Your task to perform on an android device: create a new album in the google photos Image 0: 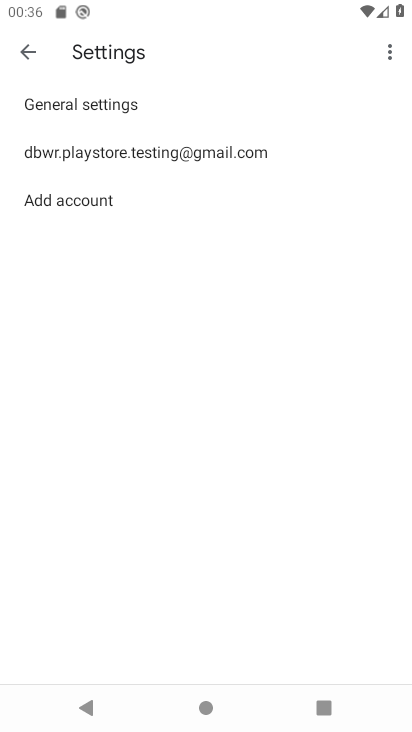
Step 0: press home button
Your task to perform on an android device: create a new album in the google photos Image 1: 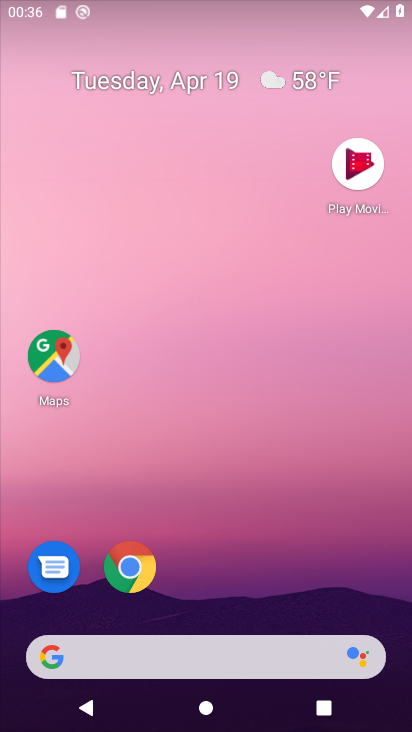
Step 1: drag from (244, 593) to (250, 125)
Your task to perform on an android device: create a new album in the google photos Image 2: 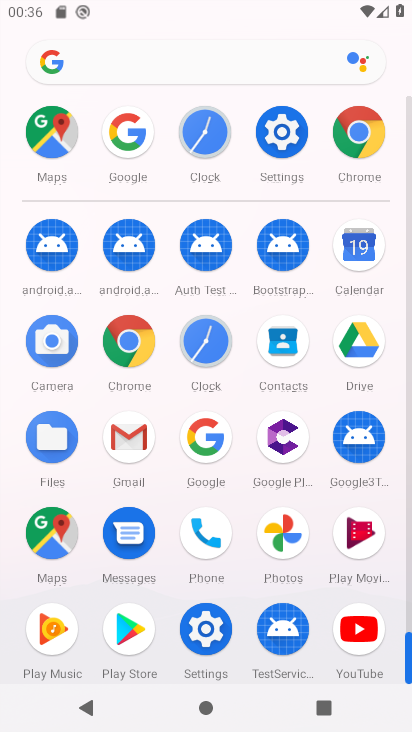
Step 2: click (278, 535)
Your task to perform on an android device: create a new album in the google photos Image 3: 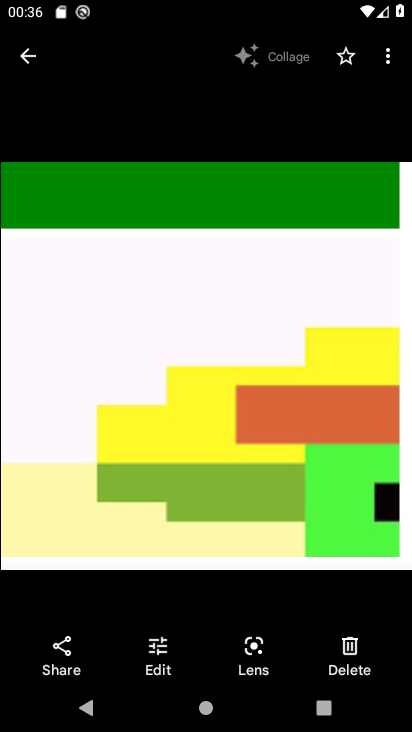
Step 3: drag from (228, 563) to (244, 228)
Your task to perform on an android device: create a new album in the google photos Image 4: 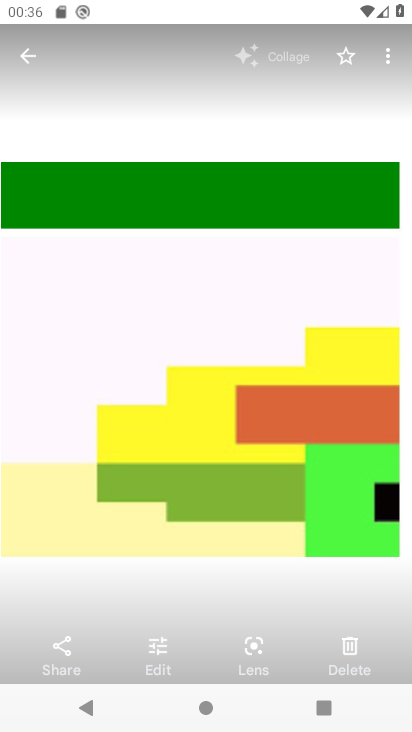
Step 4: press back button
Your task to perform on an android device: create a new album in the google photos Image 5: 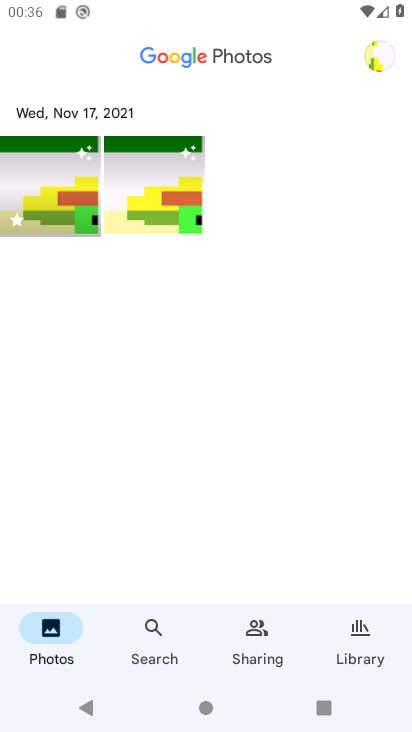
Step 5: click (166, 638)
Your task to perform on an android device: create a new album in the google photos Image 6: 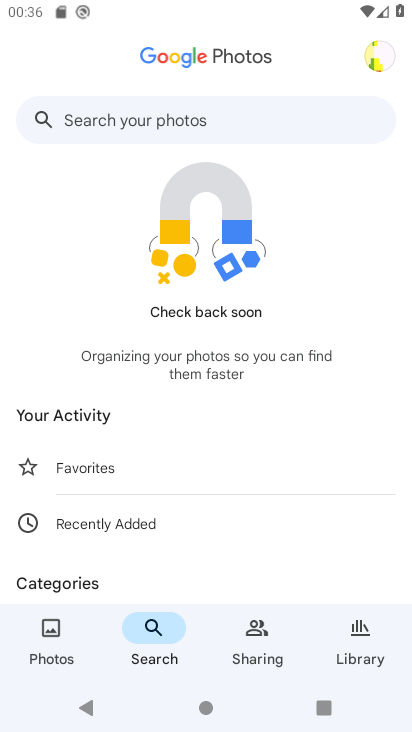
Step 6: drag from (247, 507) to (283, 276)
Your task to perform on an android device: create a new album in the google photos Image 7: 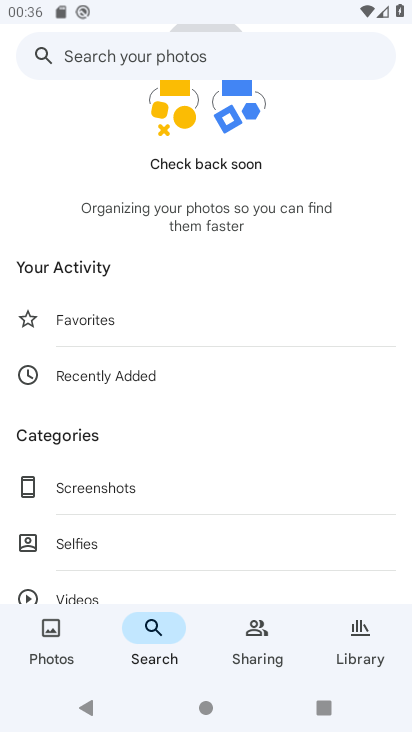
Step 7: click (264, 638)
Your task to perform on an android device: create a new album in the google photos Image 8: 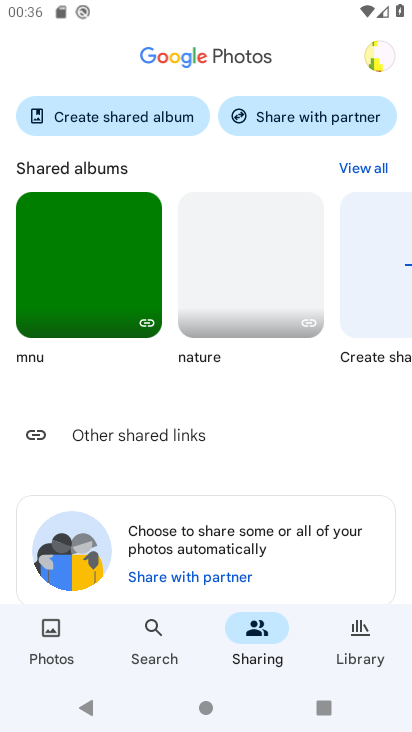
Step 8: drag from (213, 471) to (240, 252)
Your task to perform on an android device: create a new album in the google photos Image 9: 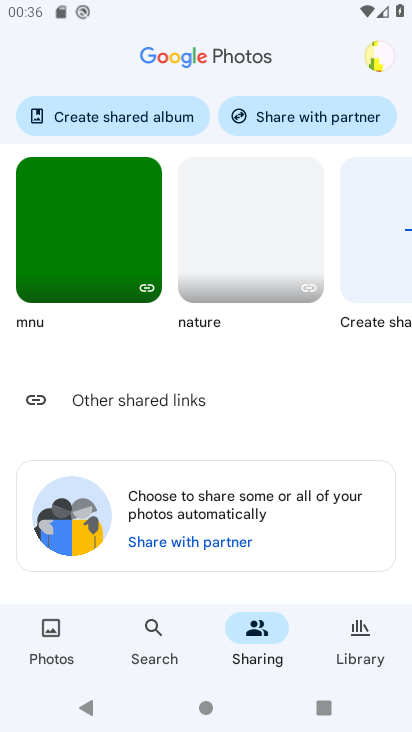
Step 9: drag from (309, 522) to (309, 160)
Your task to perform on an android device: create a new album in the google photos Image 10: 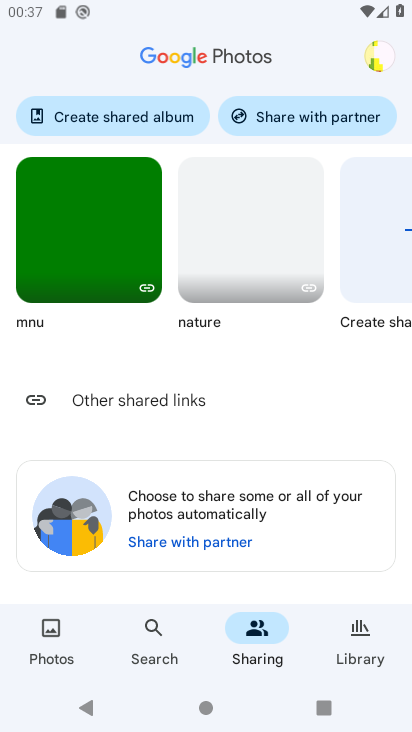
Step 10: drag from (269, 564) to (293, 295)
Your task to perform on an android device: create a new album in the google photos Image 11: 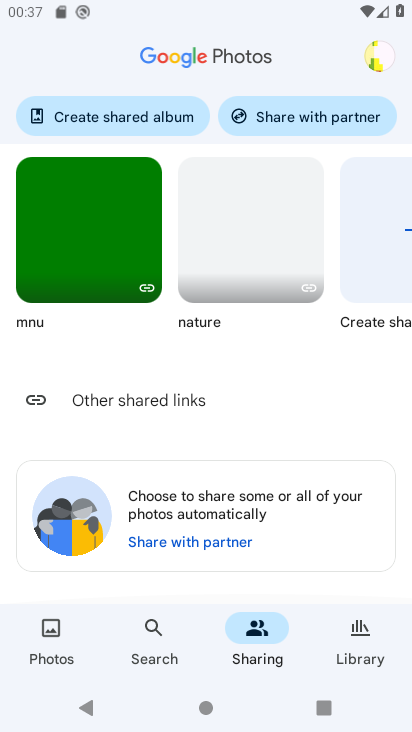
Step 11: click (370, 611)
Your task to perform on an android device: create a new album in the google photos Image 12: 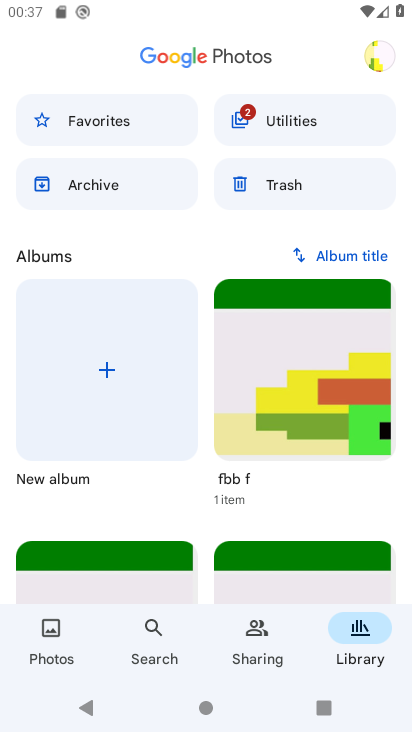
Step 12: click (105, 366)
Your task to perform on an android device: create a new album in the google photos Image 13: 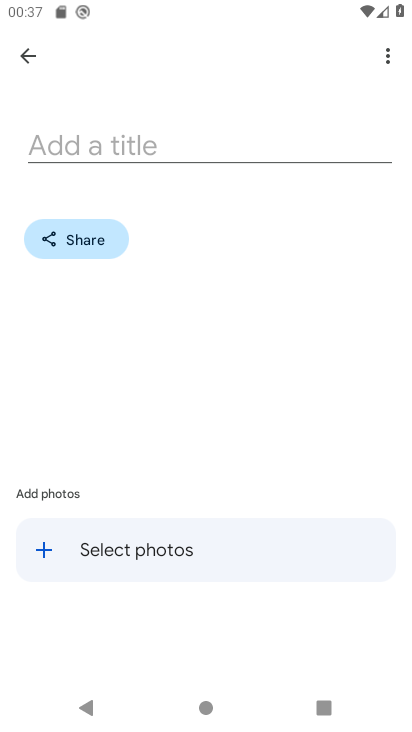
Step 13: click (48, 137)
Your task to perform on an android device: create a new album in the google photos Image 14: 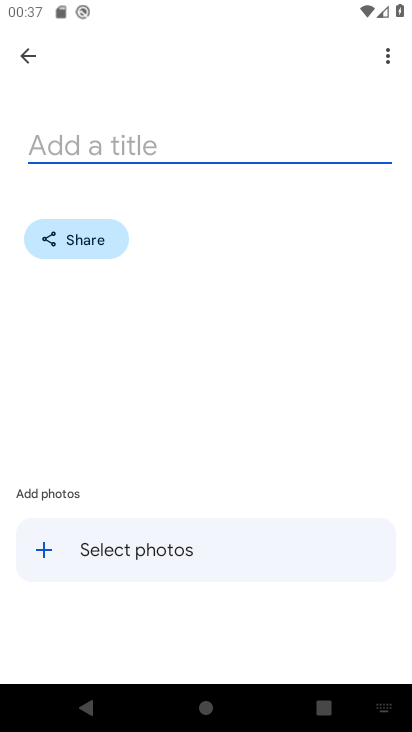
Step 14: type "njkl"
Your task to perform on an android device: create a new album in the google photos Image 15: 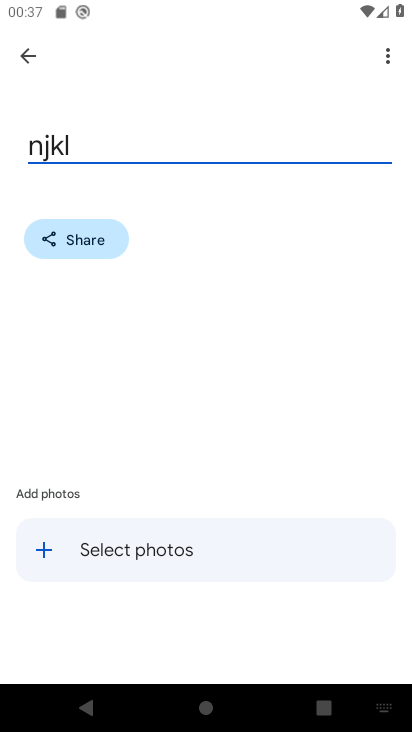
Step 15: click (41, 242)
Your task to perform on an android device: create a new album in the google photos Image 16: 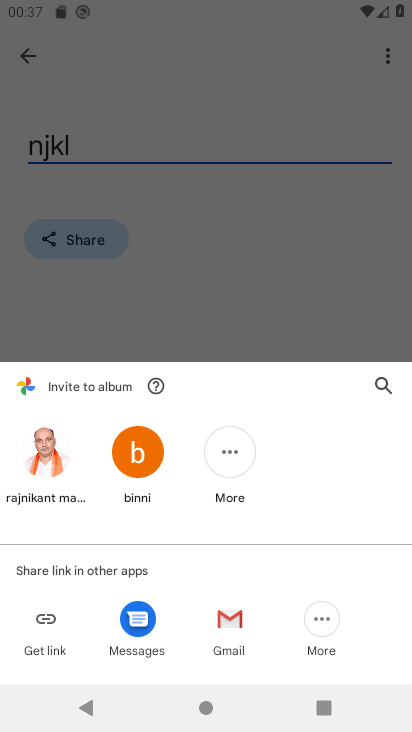
Step 16: click (243, 296)
Your task to perform on an android device: create a new album in the google photos Image 17: 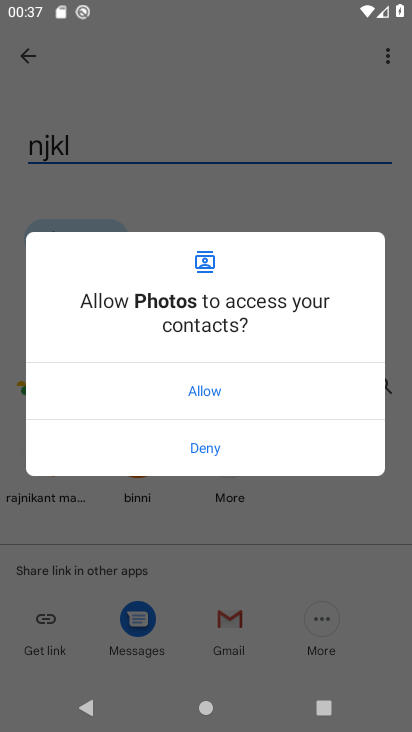
Step 17: press back button
Your task to perform on an android device: create a new album in the google photos Image 18: 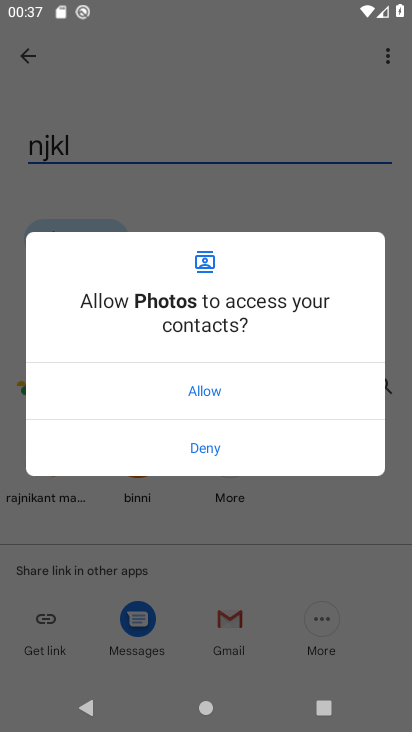
Step 18: click (220, 396)
Your task to perform on an android device: create a new album in the google photos Image 19: 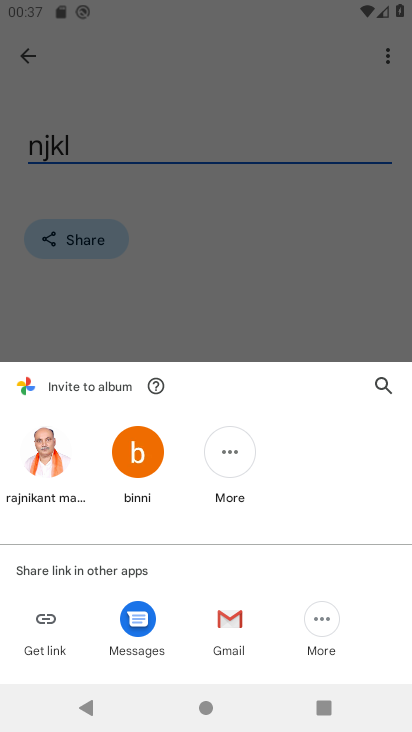
Step 19: press back button
Your task to perform on an android device: create a new album in the google photos Image 20: 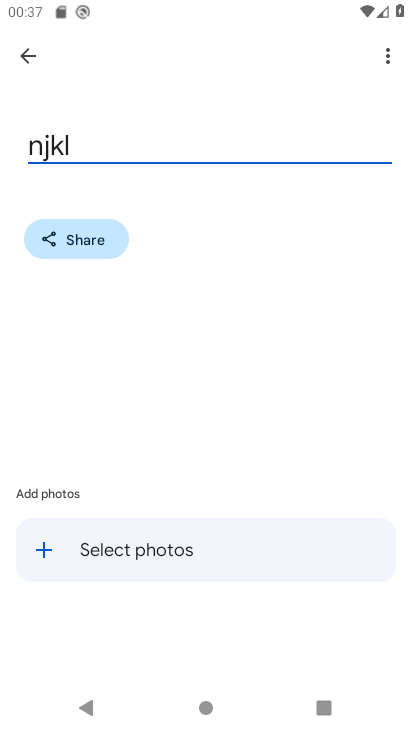
Step 20: click (190, 321)
Your task to perform on an android device: create a new album in the google photos Image 21: 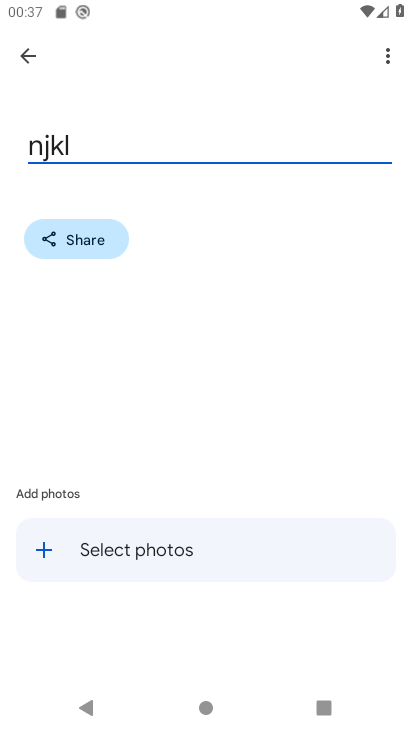
Step 21: click (43, 547)
Your task to perform on an android device: create a new album in the google photos Image 22: 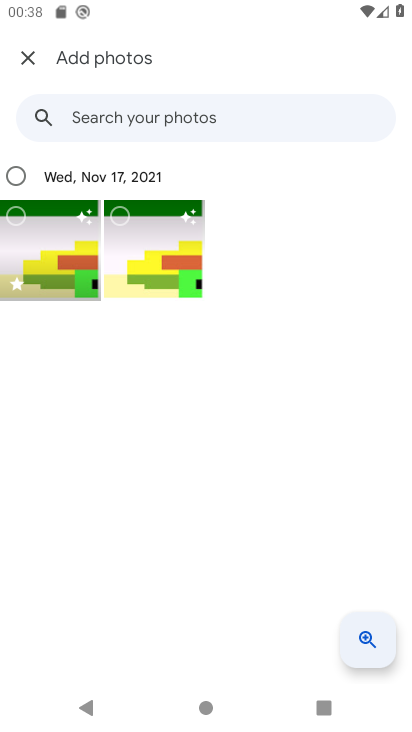
Step 22: click (152, 289)
Your task to perform on an android device: create a new album in the google photos Image 23: 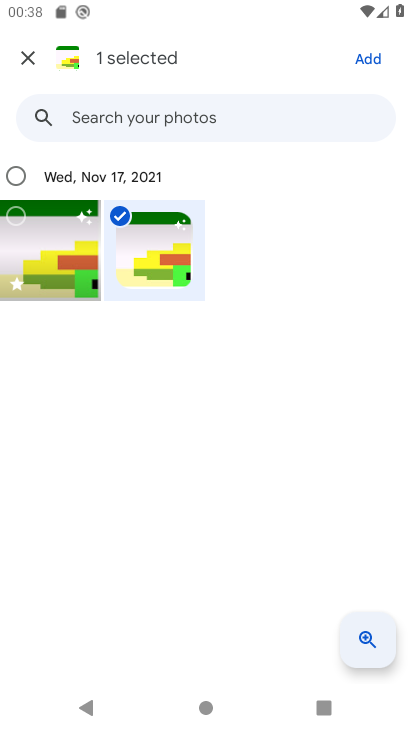
Step 23: click (369, 59)
Your task to perform on an android device: create a new album in the google photos Image 24: 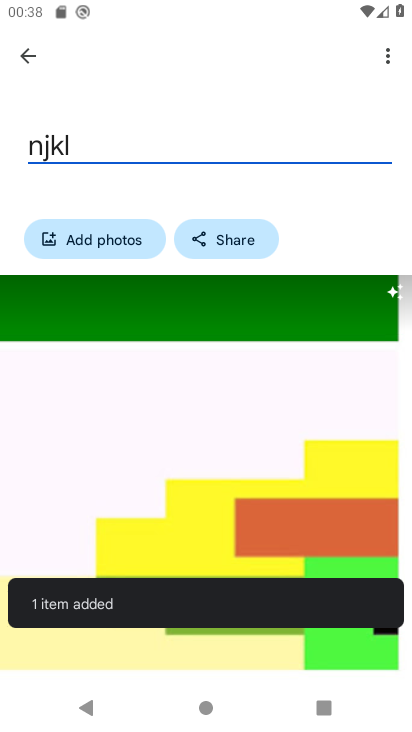
Step 24: task complete